Your task to perform on an android device: Open network settings Image 0: 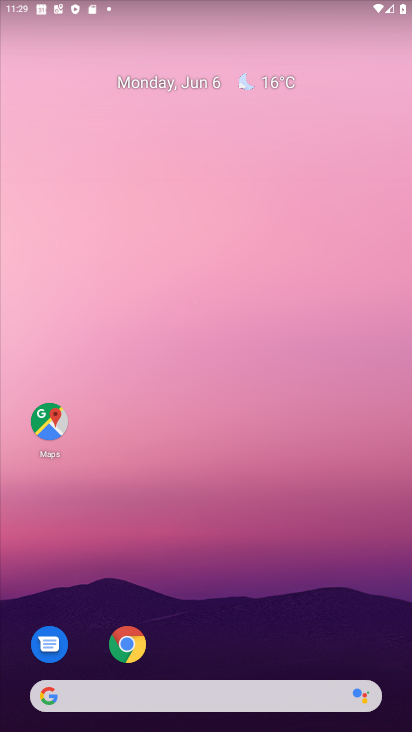
Step 0: drag from (270, 588) to (224, 79)
Your task to perform on an android device: Open network settings Image 1: 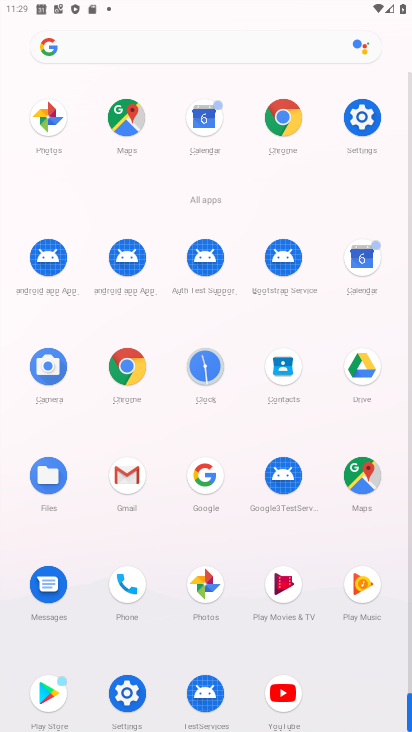
Step 1: click (125, 693)
Your task to perform on an android device: Open network settings Image 2: 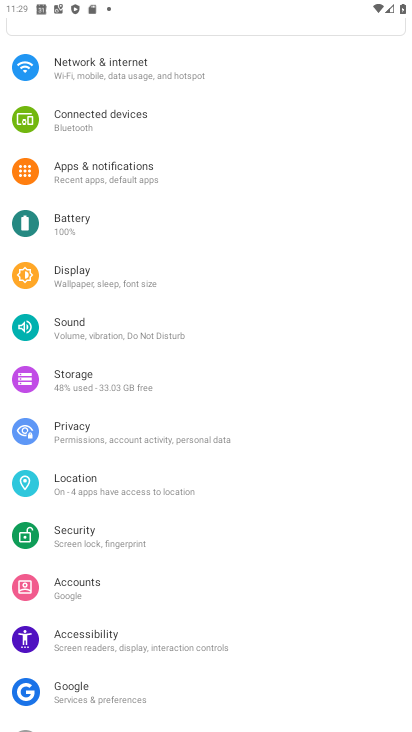
Step 2: drag from (227, 79) to (273, 470)
Your task to perform on an android device: Open network settings Image 3: 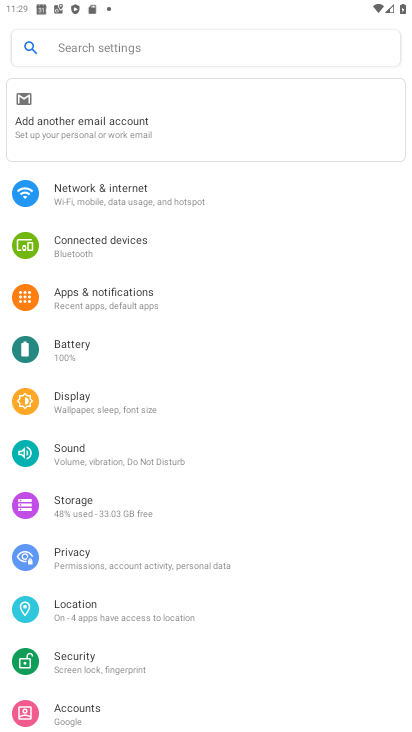
Step 3: click (175, 189)
Your task to perform on an android device: Open network settings Image 4: 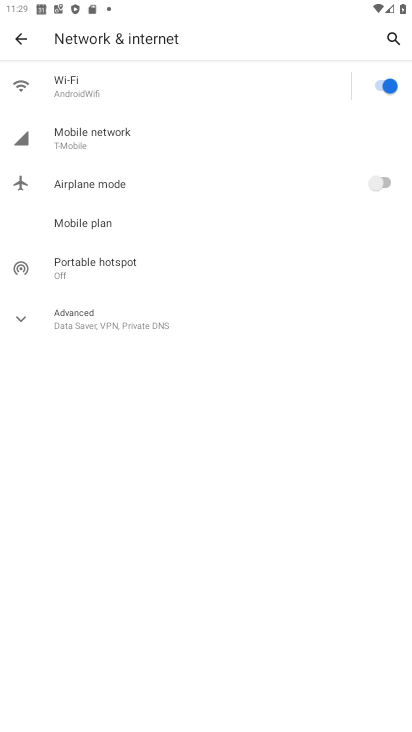
Step 4: click (34, 314)
Your task to perform on an android device: Open network settings Image 5: 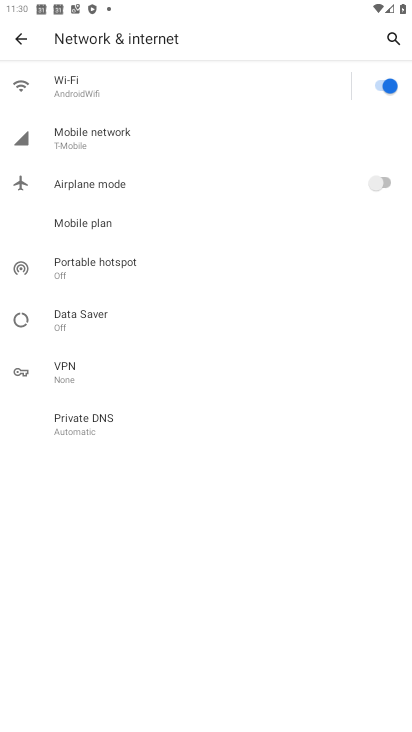
Step 5: task complete